Your task to perform on an android device: Find coffee shops on Maps Image 0: 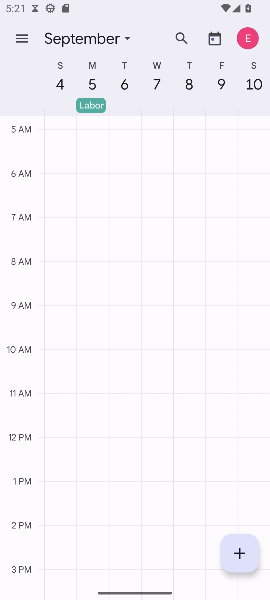
Step 0: press home button
Your task to perform on an android device: Find coffee shops on Maps Image 1: 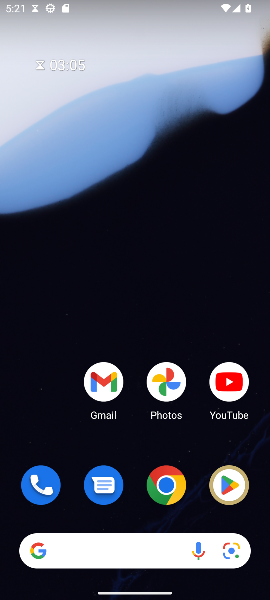
Step 1: drag from (137, 445) to (129, 0)
Your task to perform on an android device: Find coffee shops on Maps Image 2: 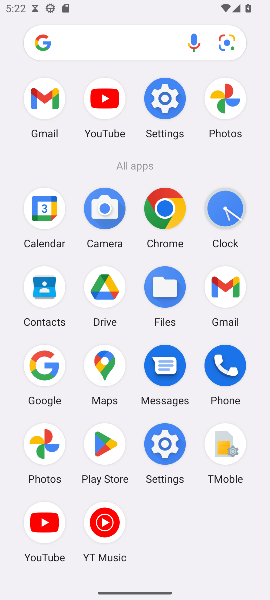
Step 2: click (112, 372)
Your task to perform on an android device: Find coffee shops on Maps Image 3: 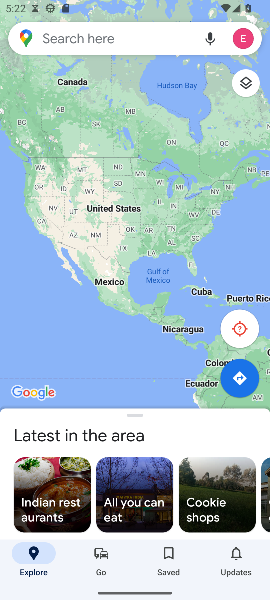
Step 3: click (87, 37)
Your task to perform on an android device: Find coffee shops on Maps Image 4: 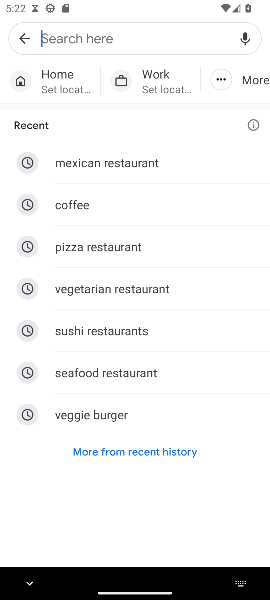
Step 4: type "coffee shops"
Your task to perform on an android device: Find coffee shops on Maps Image 5: 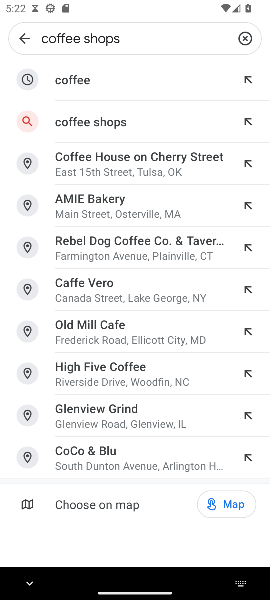
Step 5: click (116, 125)
Your task to perform on an android device: Find coffee shops on Maps Image 6: 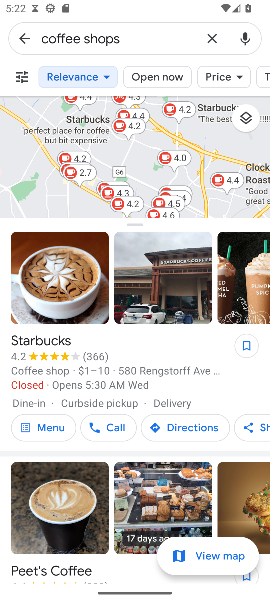
Step 6: task complete